Your task to perform on an android device: See recent photos Image 0: 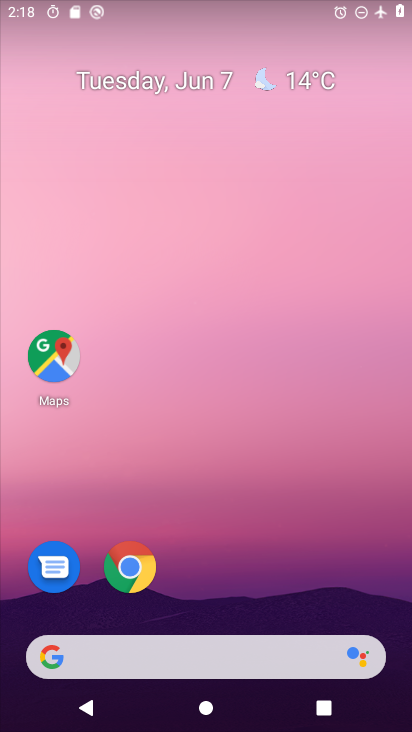
Step 0: drag from (304, 489) to (315, 3)
Your task to perform on an android device: See recent photos Image 1: 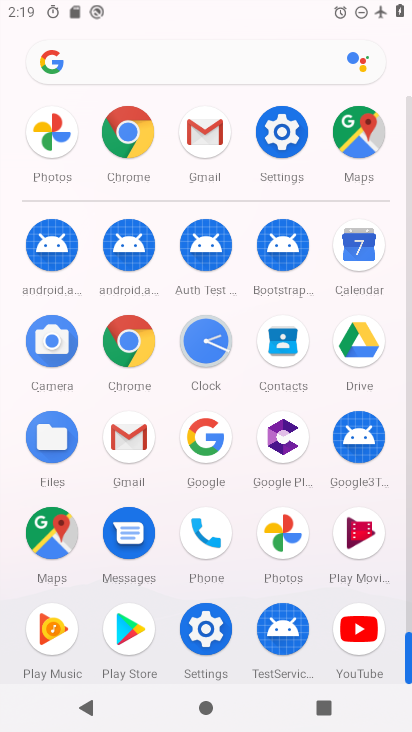
Step 1: click (288, 519)
Your task to perform on an android device: See recent photos Image 2: 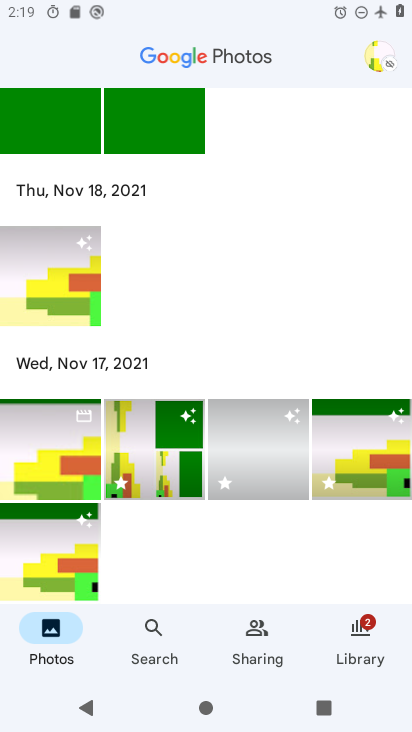
Step 2: task complete